Your task to perform on an android device: What's the weather going to be tomorrow? Image 0: 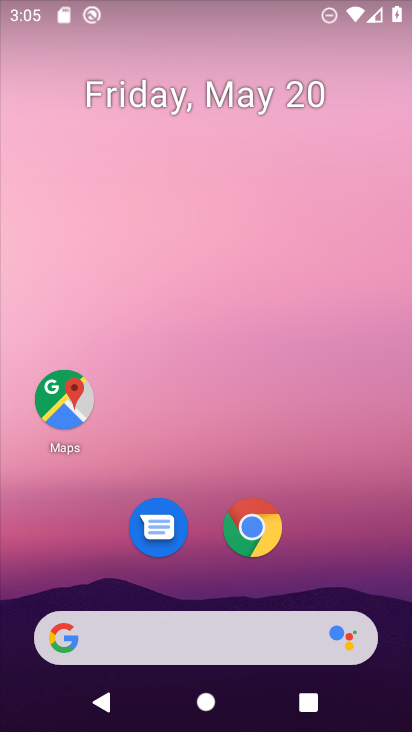
Step 0: click (198, 626)
Your task to perform on an android device: What's the weather going to be tomorrow? Image 1: 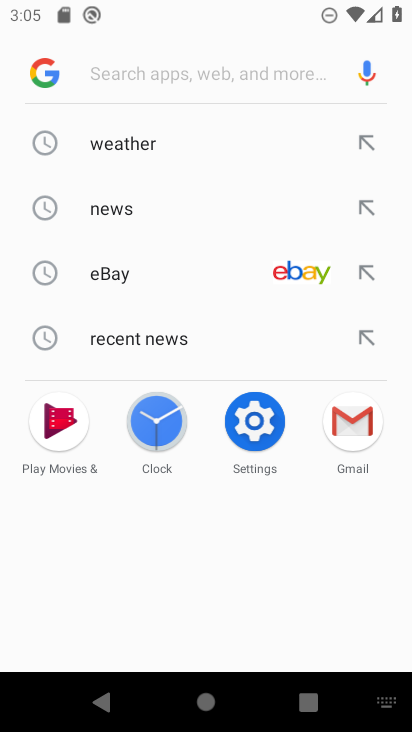
Step 1: click (136, 135)
Your task to perform on an android device: What's the weather going to be tomorrow? Image 2: 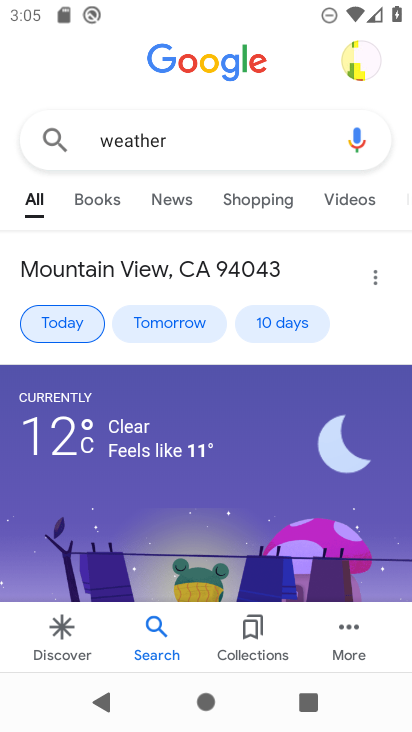
Step 2: click (178, 323)
Your task to perform on an android device: What's the weather going to be tomorrow? Image 3: 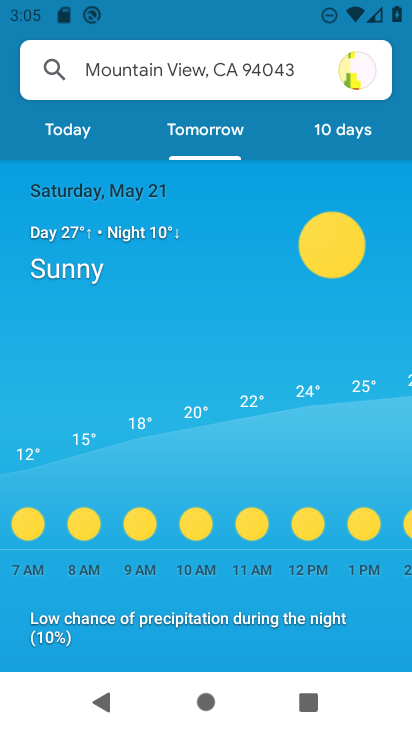
Step 3: task complete